Your task to perform on an android device: Show me recent news Image 0: 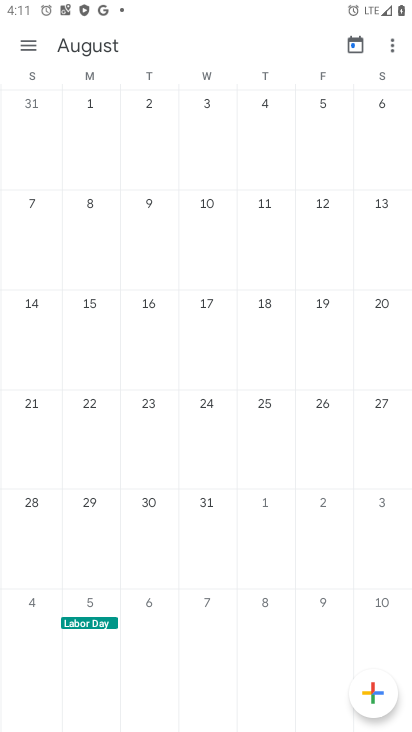
Step 0: press home button
Your task to perform on an android device: Show me recent news Image 1: 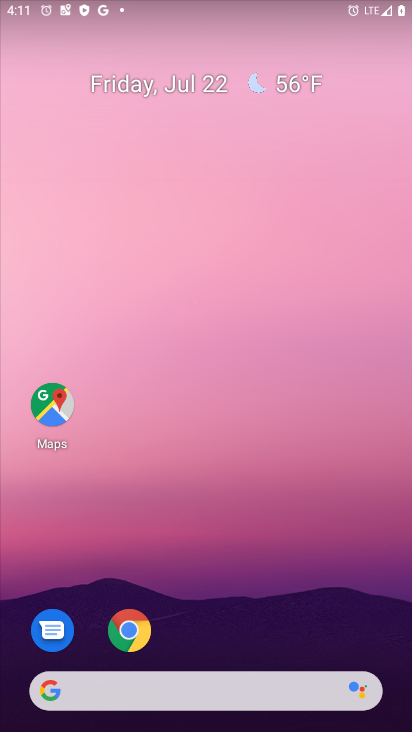
Step 1: task complete